Your task to perform on an android device: Open maps Image 0: 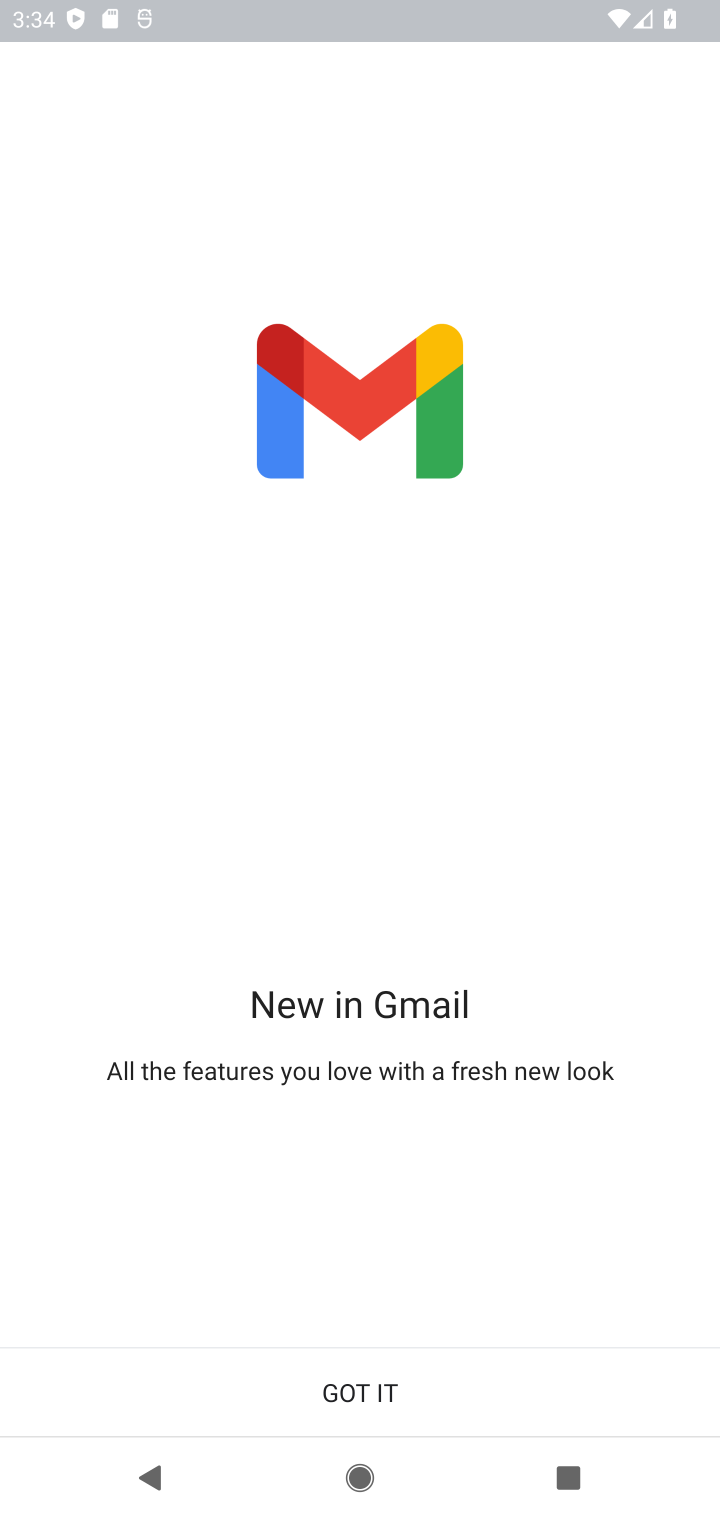
Step 0: press home button
Your task to perform on an android device: Open maps Image 1: 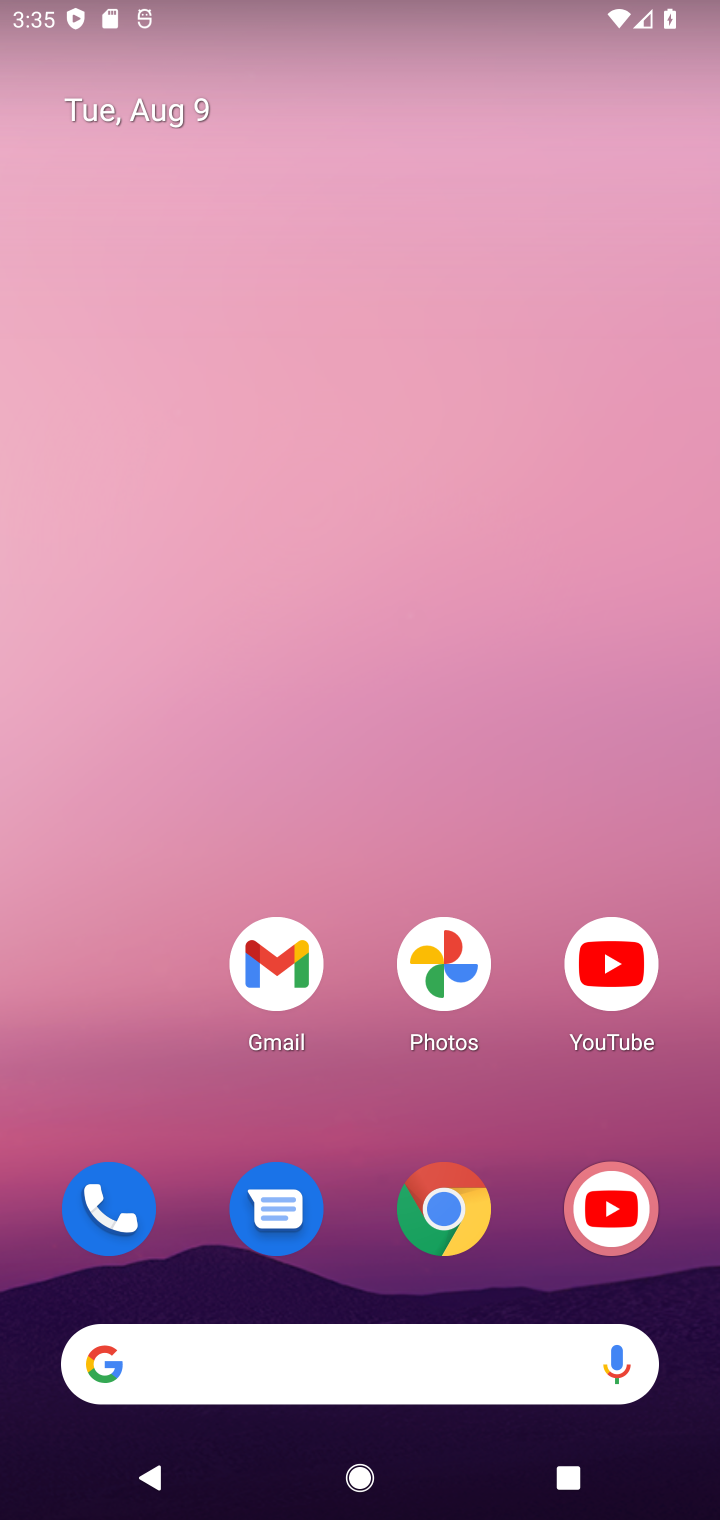
Step 1: drag from (81, 1033) to (181, 430)
Your task to perform on an android device: Open maps Image 2: 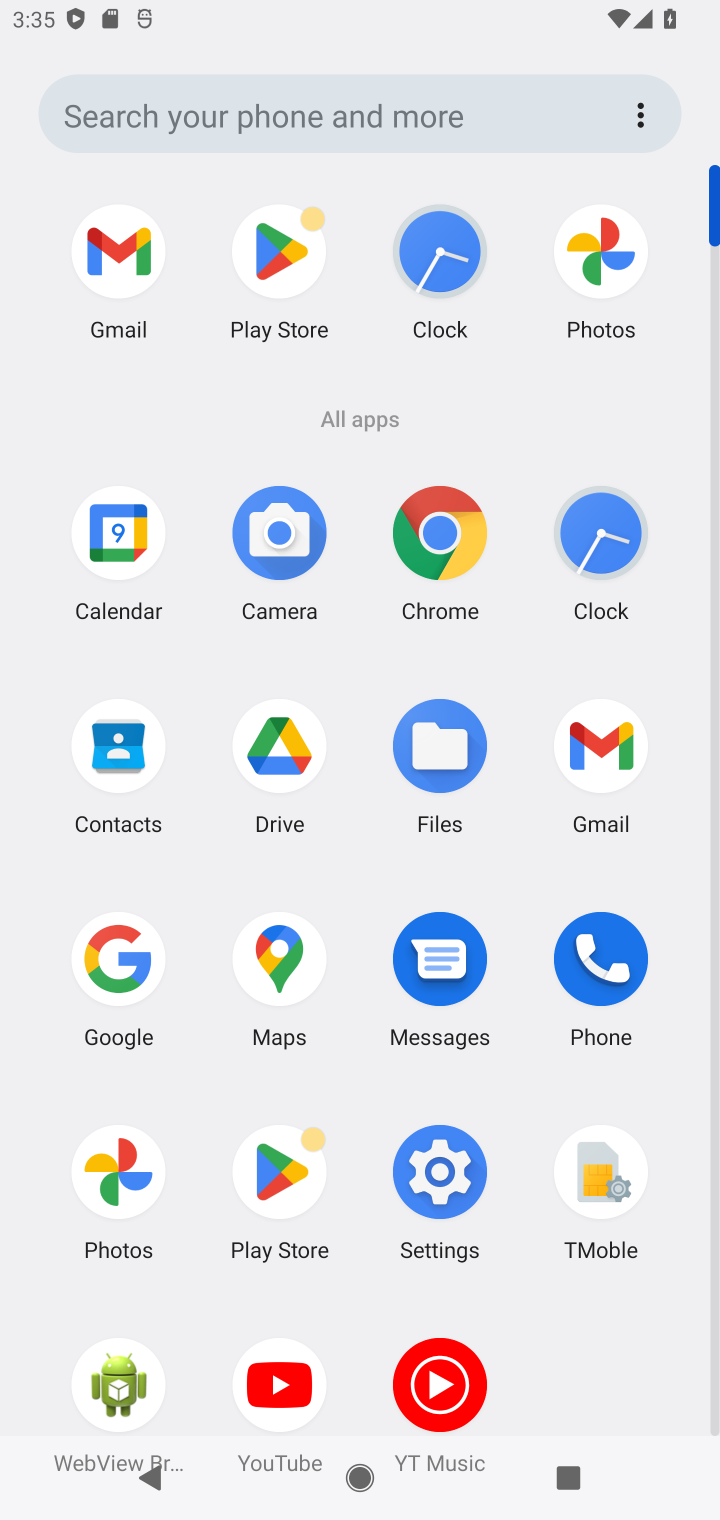
Step 2: click (283, 965)
Your task to perform on an android device: Open maps Image 3: 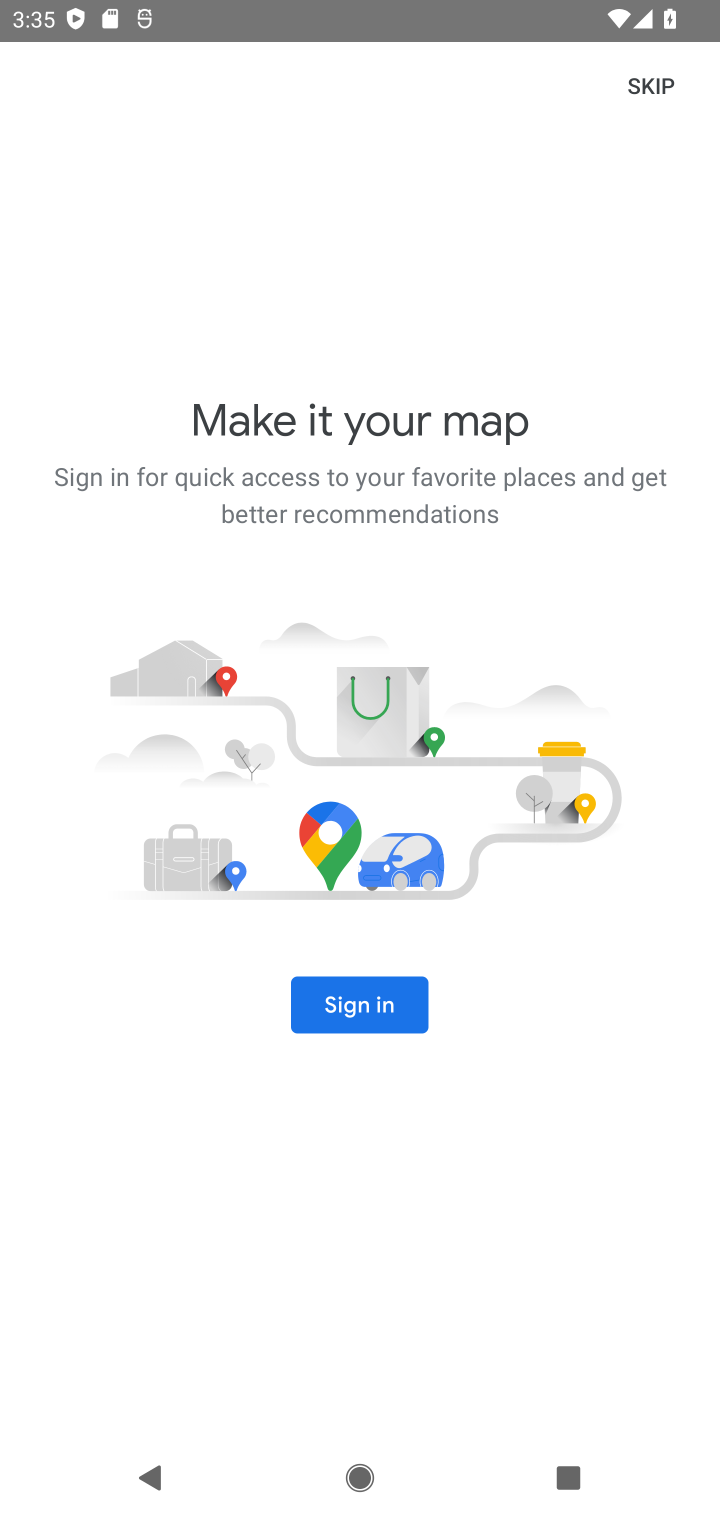
Step 3: click (655, 77)
Your task to perform on an android device: Open maps Image 4: 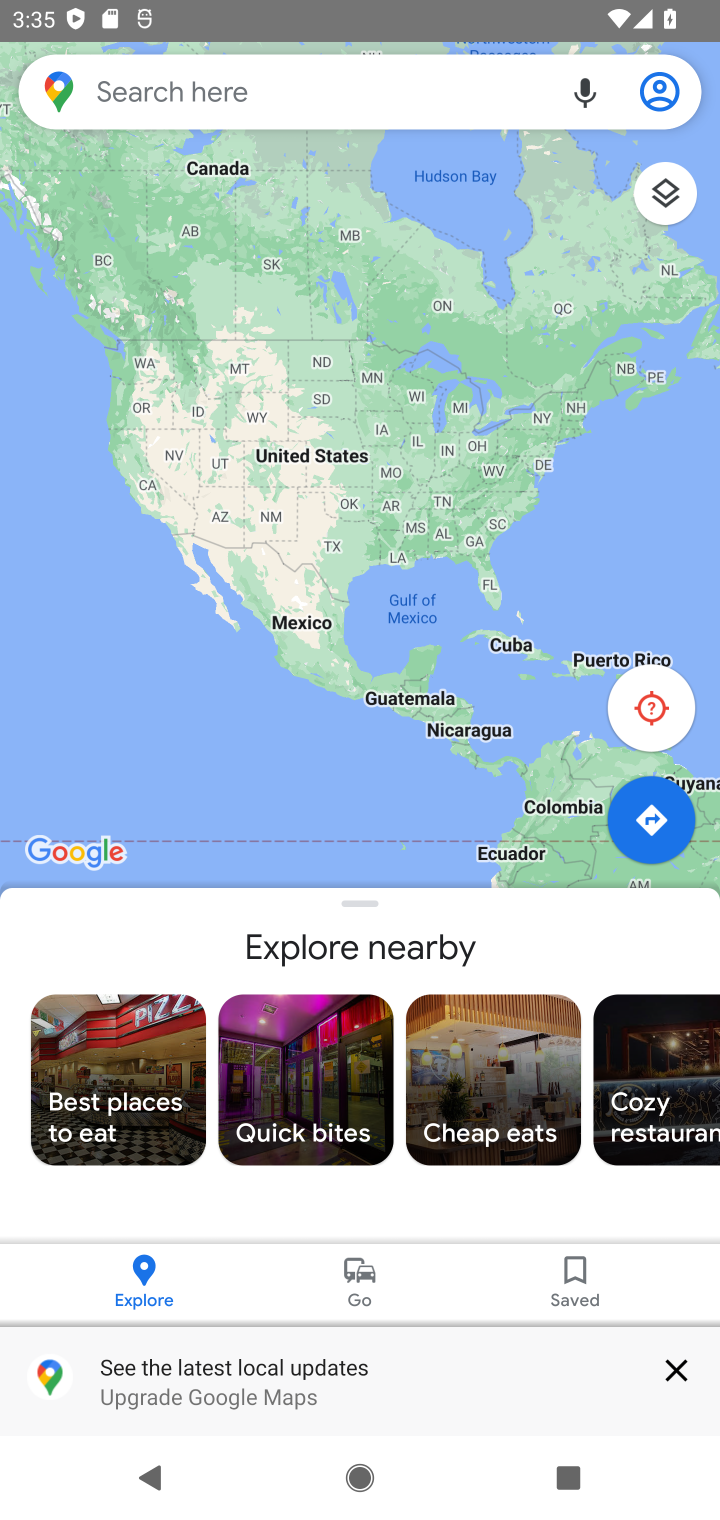
Step 4: task complete